Your task to perform on an android device: Go to Wikipedia Image 0: 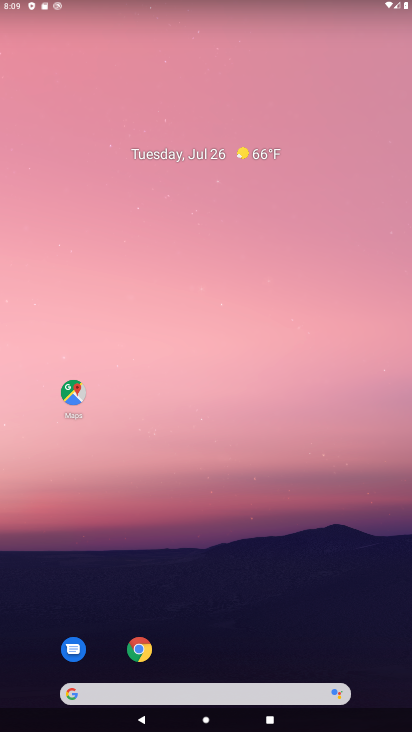
Step 0: click (185, 696)
Your task to perform on an android device: Go to Wikipedia Image 1: 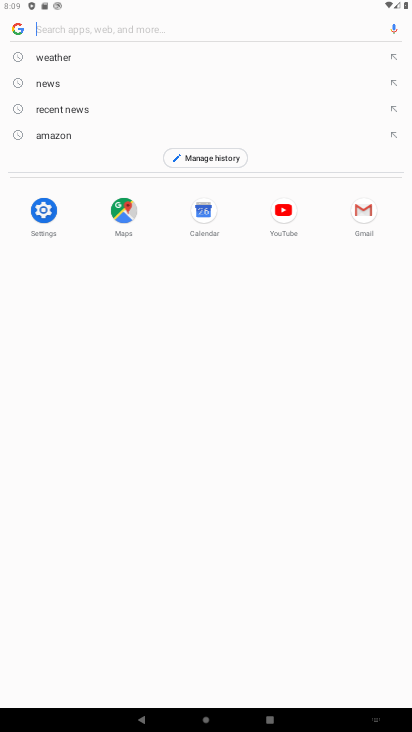
Step 1: type "wikipedia"
Your task to perform on an android device: Go to Wikipedia Image 2: 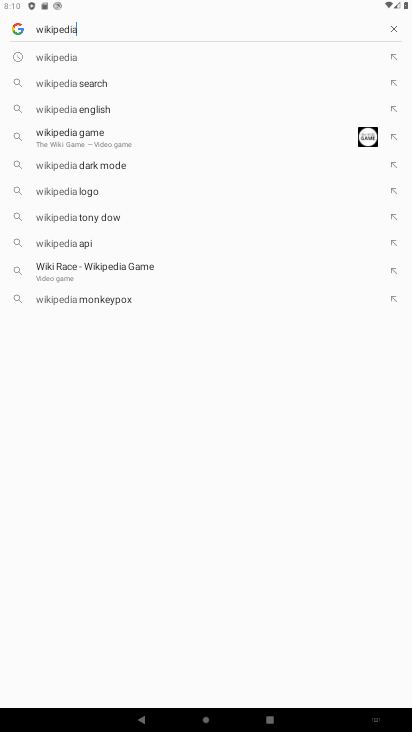
Step 2: click (158, 56)
Your task to perform on an android device: Go to Wikipedia Image 3: 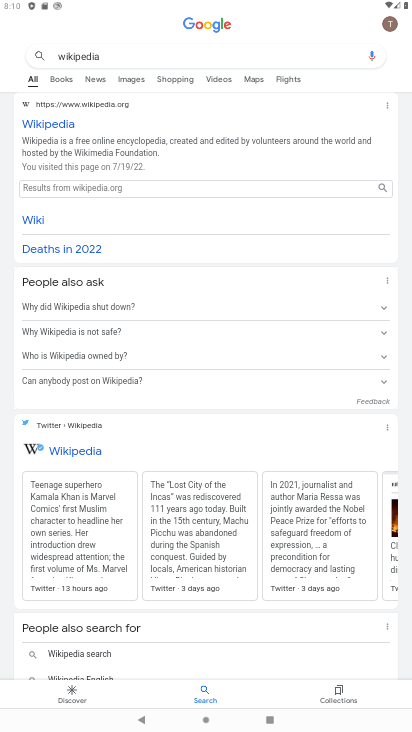
Step 3: click (93, 102)
Your task to perform on an android device: Go to Wikipedia Image 4: 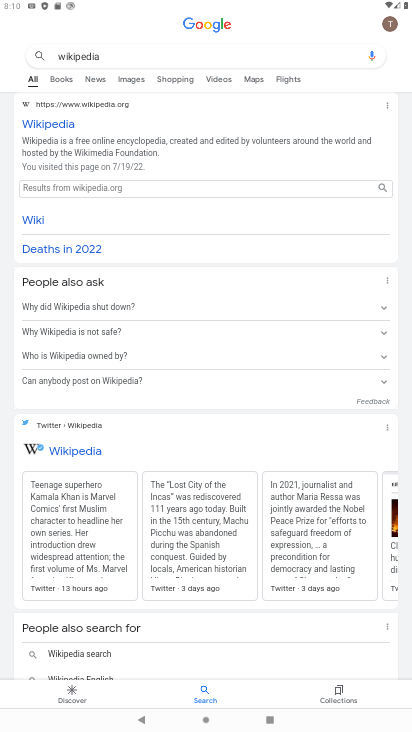
Step 4: click (93, 102)
Your task to perform on an android device: Go to Wikipedia Image 5: 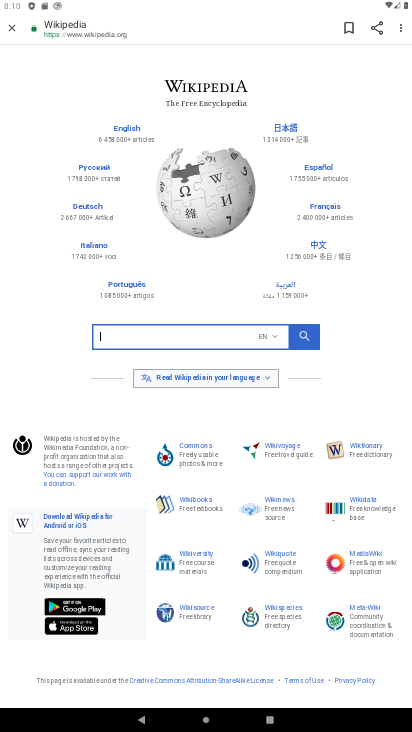
Step 5: task complete